Your task to perform on an android device: Open calendar and show me the second week of next month Image 0: 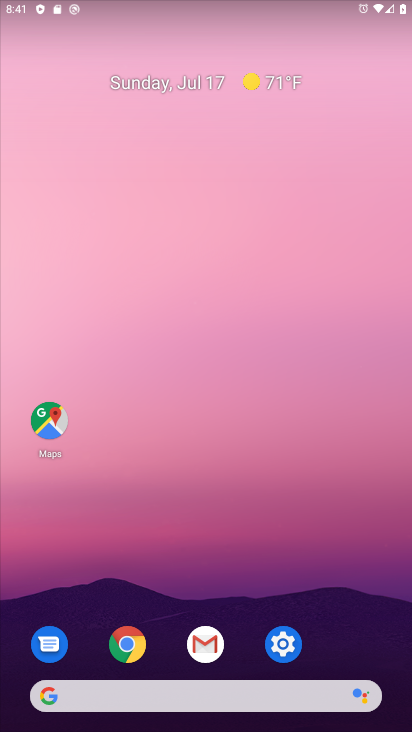
Step 0: drag from (273, 686) to (251, 23)
Your task to perform on an android device: Open calendar and show me the second week of next month Image 1: 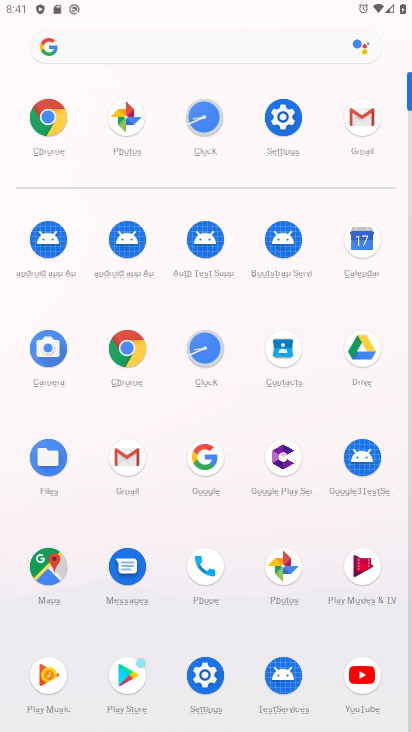
Step 1: click (366, 241)
Your task to perform on an android device: Open calendar and show me the second week of next month Image 2: 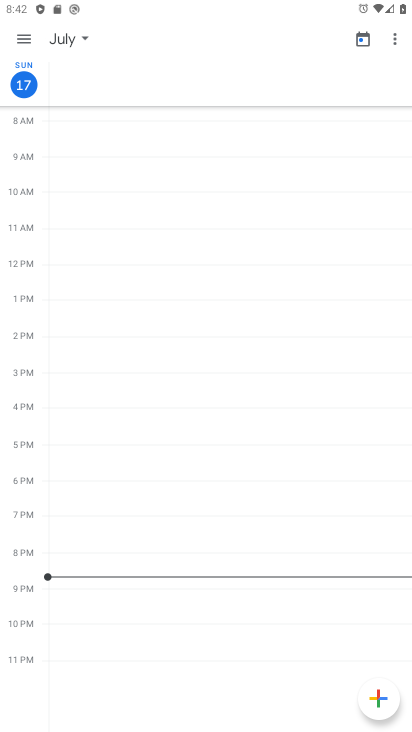
Step 2: click (18, 32)
Your task to perform on an android device: Open calendar and show me the second week of next month Image 3: 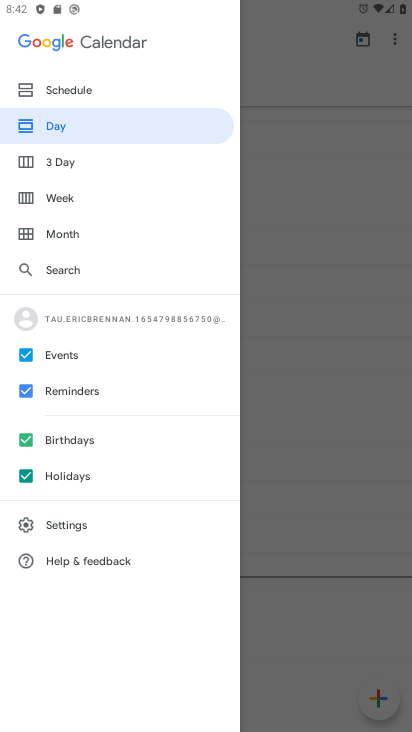
Step 3: click (81, 239)
Your task to perform on an android device: Open calendar and show me the second week of next month Image 4: 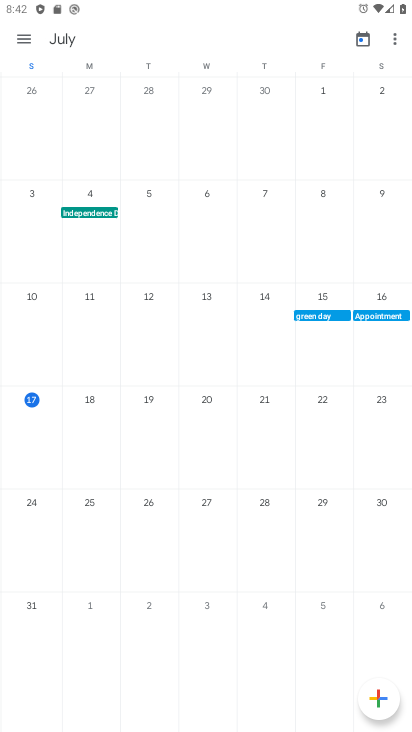
Step 4: drag from (349, 327) to (1, 391)
Your task to perform on an android device: Open calendar and show me the second week of next month Image 5: 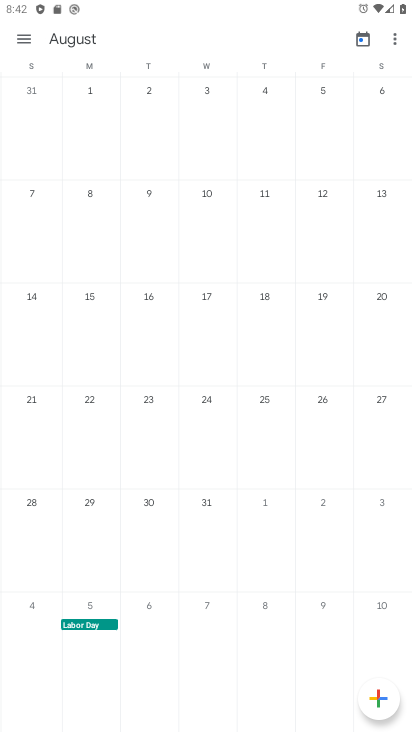
Step 5: click (87, 194)
Your task to perform on an android device: Open calendar and show me the second week of next month Image 6: 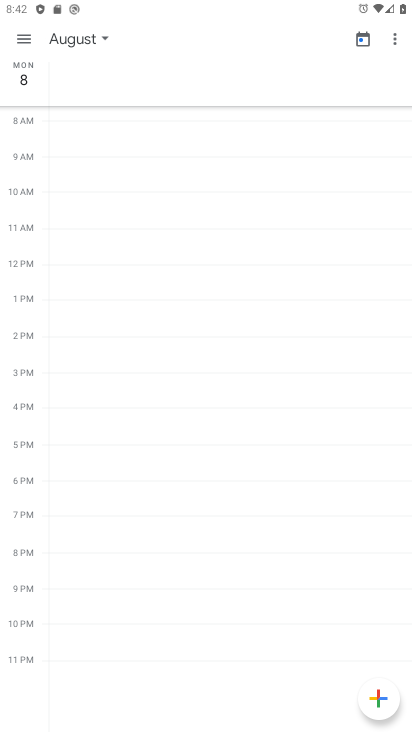
Step 6: task complete